Your task to perform on an android device: turn off wifi Image 0: 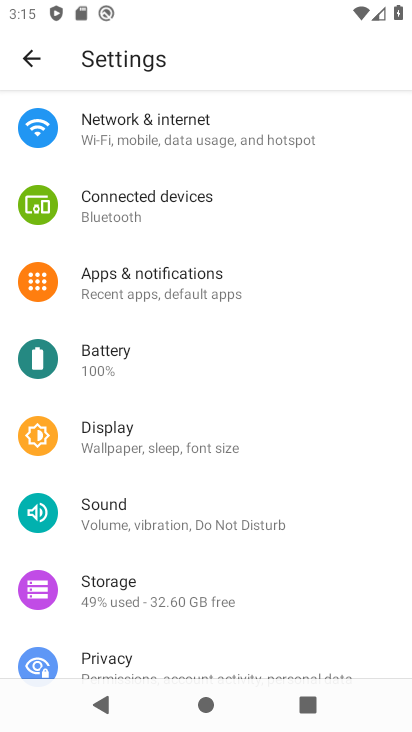
Step 0: click (206, 143)
Your task to perform on an android device: turn off wifi Image 1: 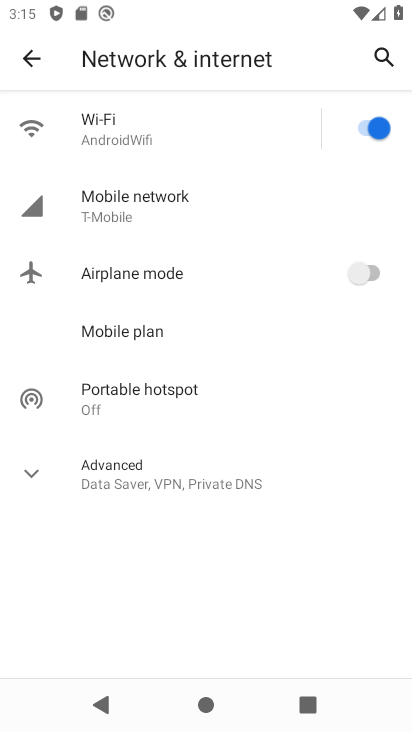
Step 1: click (371, 125)
Your task to perform on an android device: turn off wifi Image 2: 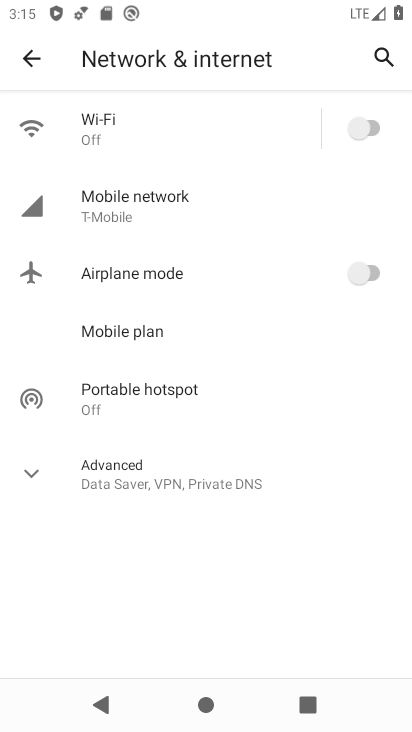
Step 2: task complete